Your task to perform on an android device: turn on bluetooth scan Image 0: 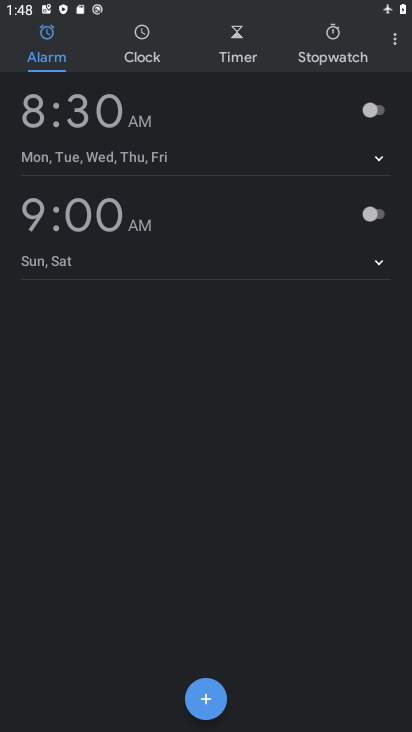
Step 0: press home button
Your task to perform on an android device: turn on bluetooth scan Image 1: 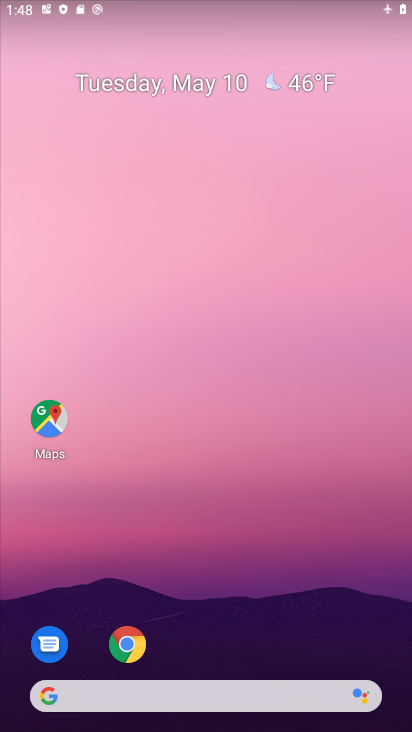
Step 1: drag from (299, 622) to (207, 223)
Your task to perform on an android device: turn on bluetooth scan Image 2: 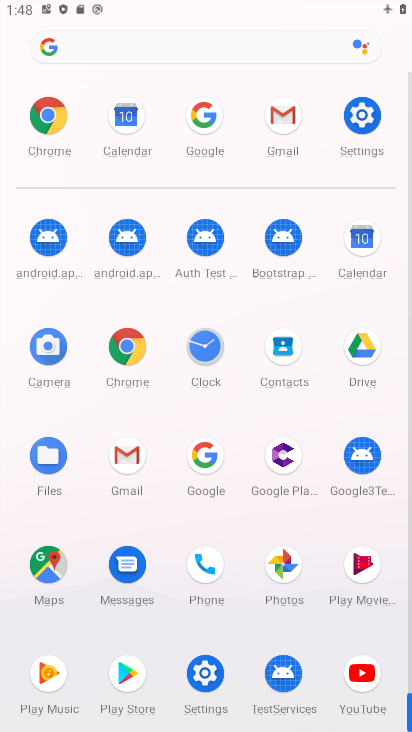
Step 2: click (371, 121)
Your task to perform on an android device: turn on bluetooth scan Image 3: 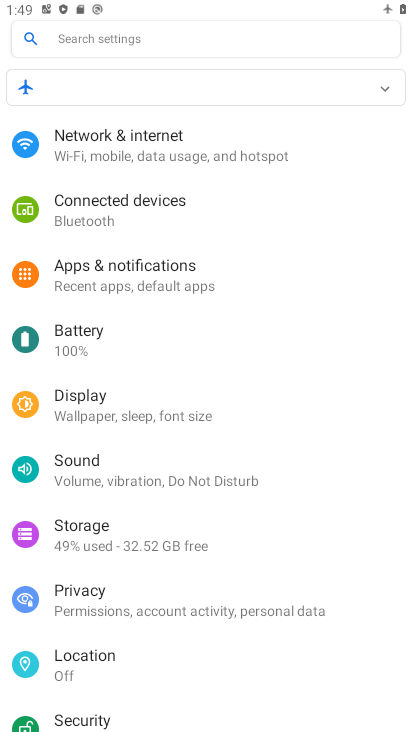
Step 3: drag from (119, 456) to (138, 493)
Your task to perform on an android device: turn on bluetooth scan Image 4: 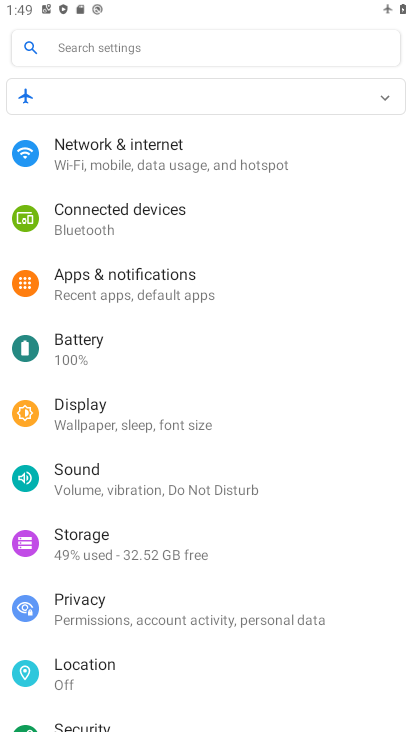
Step 4: click (118, 227)
Your task to perform on an android device: turn on bluetooth scan Image 5: 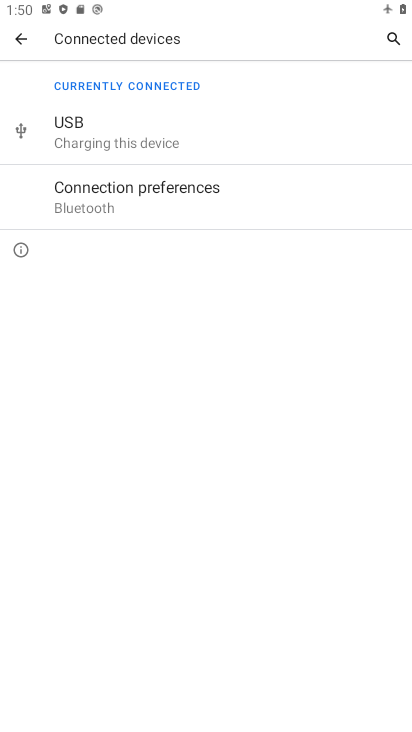
Step 5: press back button
Your task to perform on an android device: turn on bluetooth scan Image 6: 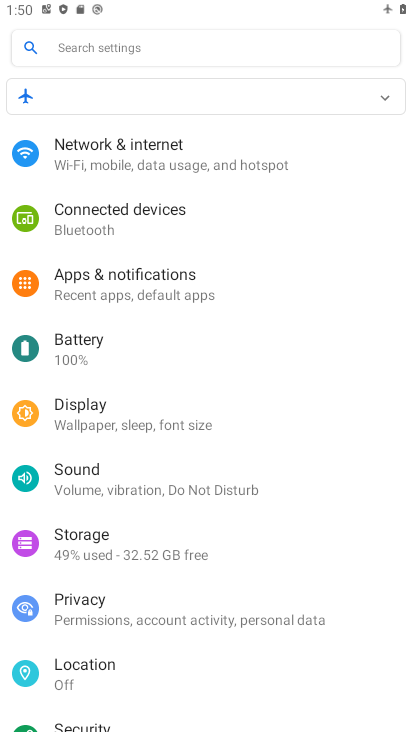
Step 6: drag from (153, 601) to (184, 238)
Your task to perform on an android device: turn on bluetooth scan Image 7: 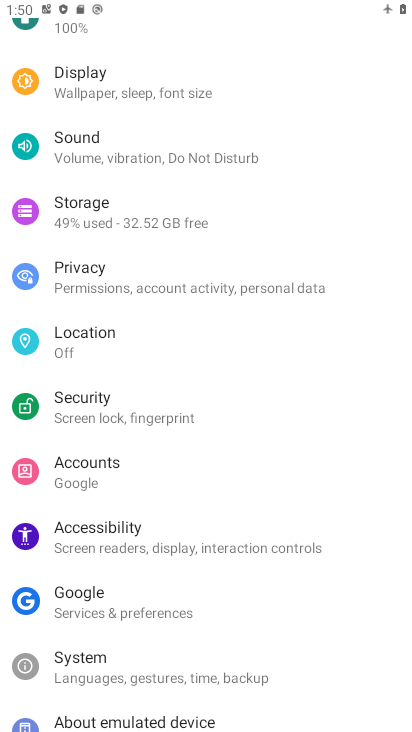
Step 7: click (188, 217)
Your task to perform on an android device: turn on bluetooth scan Image 8: 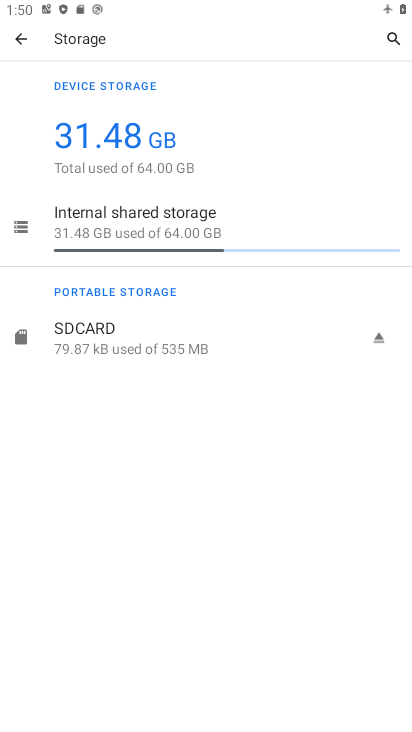
Step 8: press back button
Your task to perform on an android device: turn on bluetooth scan Image 9: 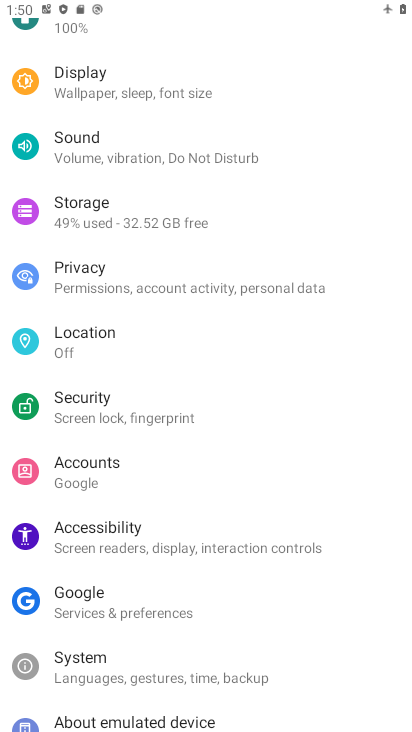
Step 9: click (86, 347)
Your task to perform on an android device: turn on bluetooth scan Image 10: 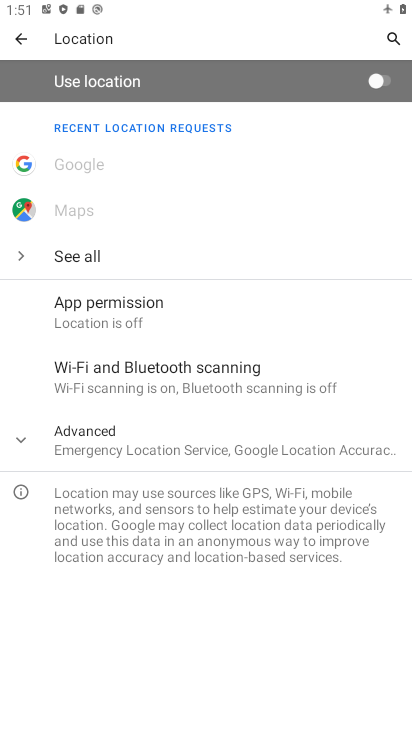
Step 10: click (175, 460)
Your task to perform on an android device: turn on bluetooth scan Image 11: 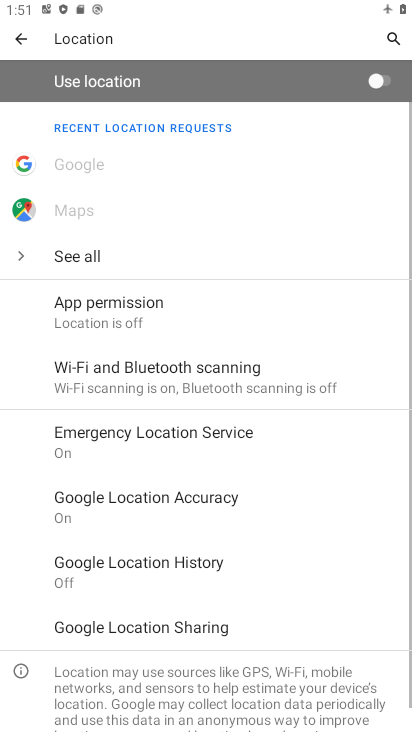
Step 11: click (172, 387)
Your task to perform on an android device: turn on bluetooth scan Image 12: 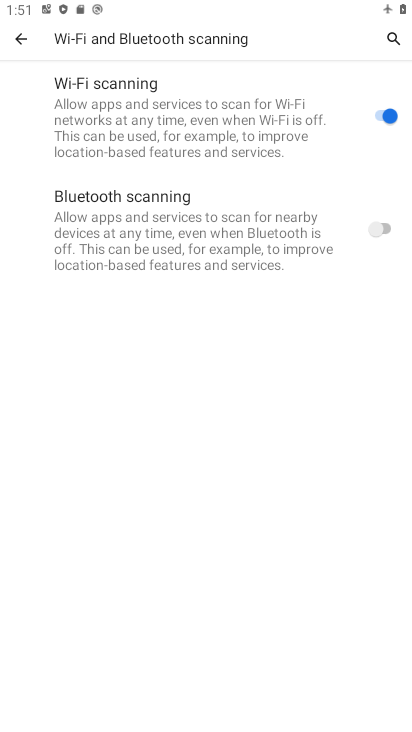
Step 12: click (358, 234)
Your task to perform on an android device: turn on bluetooth scan Image 13: 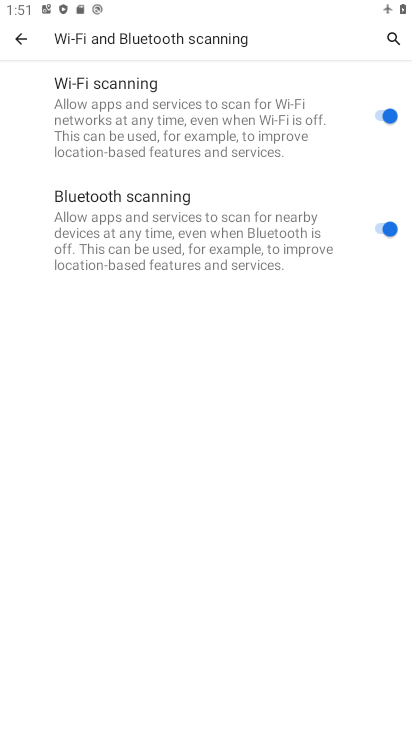
Step 13: task complete